Your task to perform on an android device: turn on bluetooth scan Image 0: 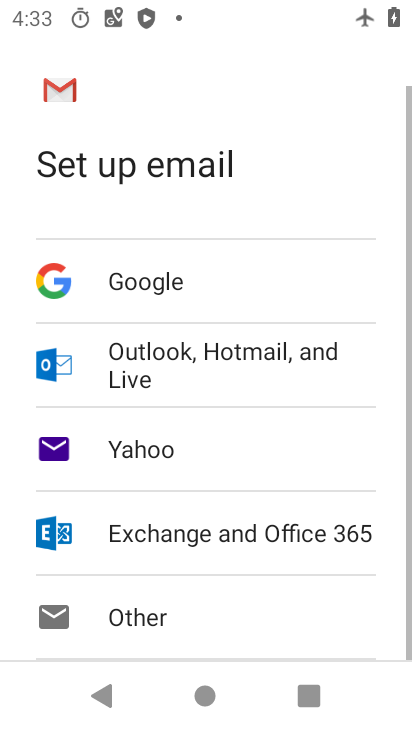
Step 0: press home button
Your task to perform on an android device: turn on bluetooth scan Image 1: 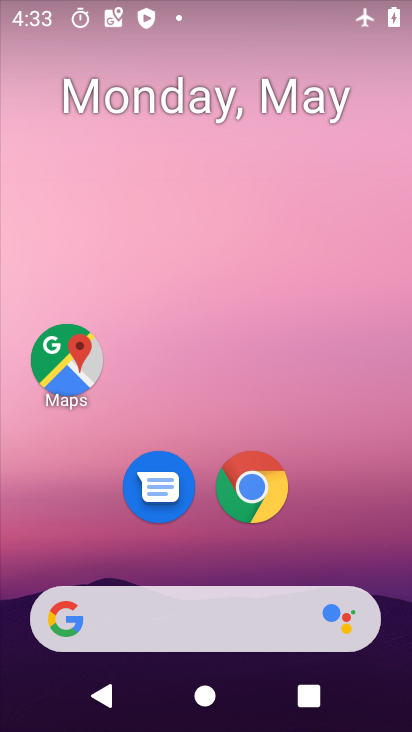
Step 1: drag from (214, 541) to (217, 269)
Your task to perform on an android device: turn on bluetooth scan Image 2: 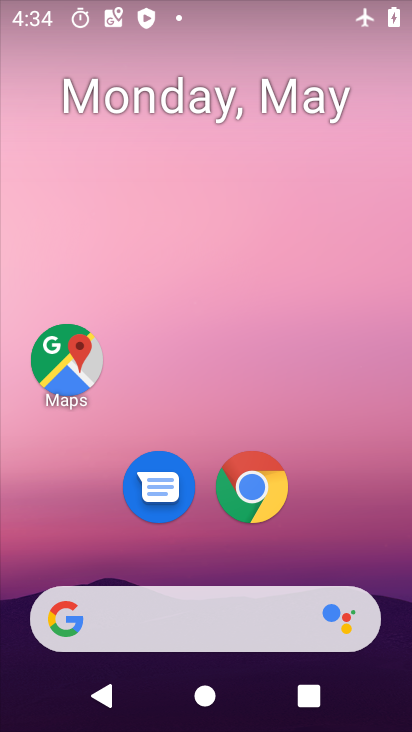
Step 2: drag from (218, 519) to (218, 168)
Your task to perform on an android device: turn on bluetooth scan Image 3: 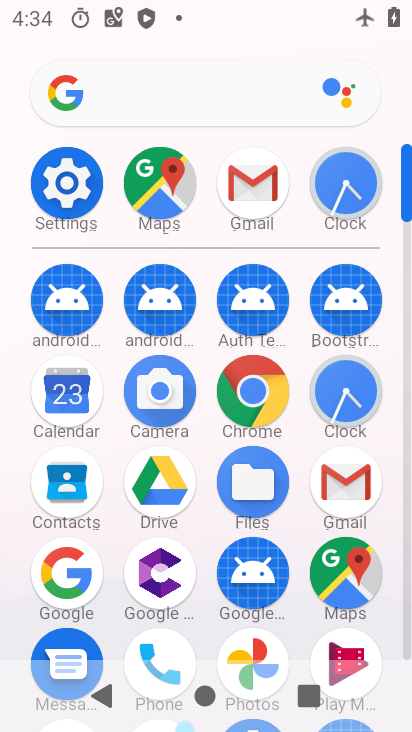
Step 3: click (66, 173)
Your task to perform on an android device: turn on bluetooth scan Image 4: 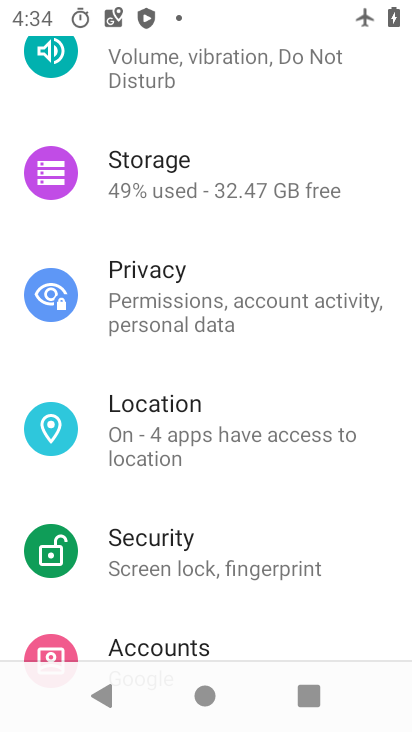
Step 4: click (198, 452)
Your task to perform on an android device: turn on bluetooth scan Image 5: 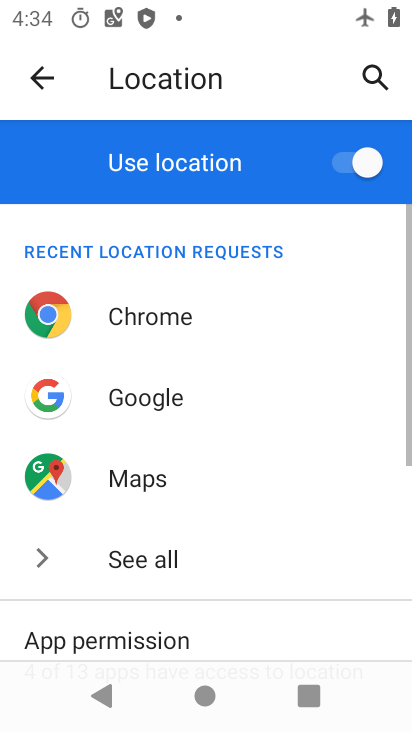
Step 5: drag from (162, 394) to (166, 260)
Your task to perform on an android device: turn on bluetooth scan Image 6: 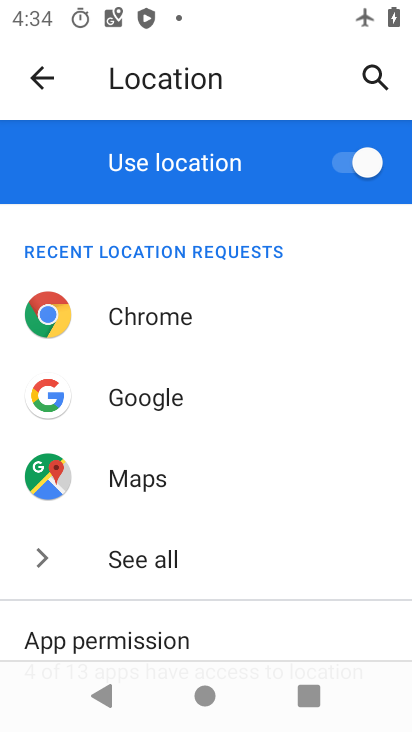
Step 6: drag from (182, 565) to (193, 291)
Your task to perform on an android device: turn on bluetooth scan Image 7: 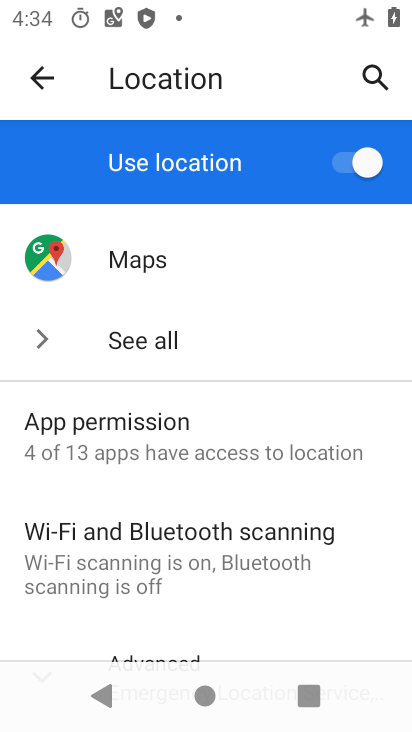
Step 7: drag from (174, 578) to (172, 269)
Your task to perform on an android device: turn on bluetooth scan Image 8: 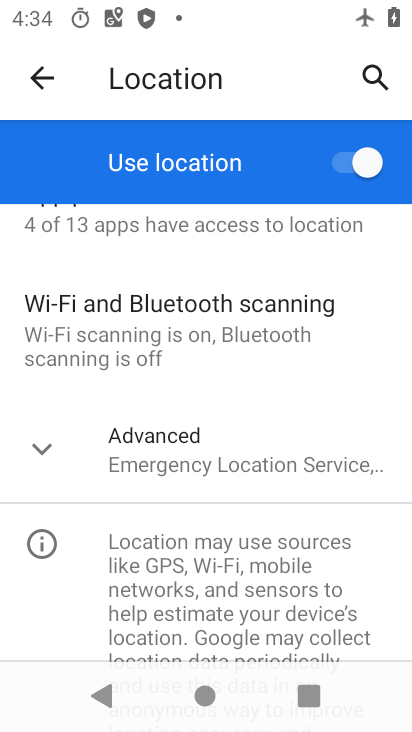
Step 8: click (151, 447)
Your task to perform on an android device: turn on bluetooth scan Image 9: 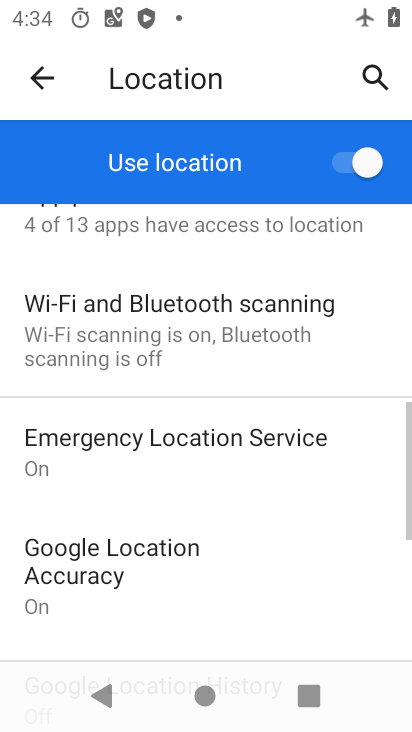
Step 9: click (175, 342)
Your task to perform on an android device: turn on bluetooth scan Image 10: 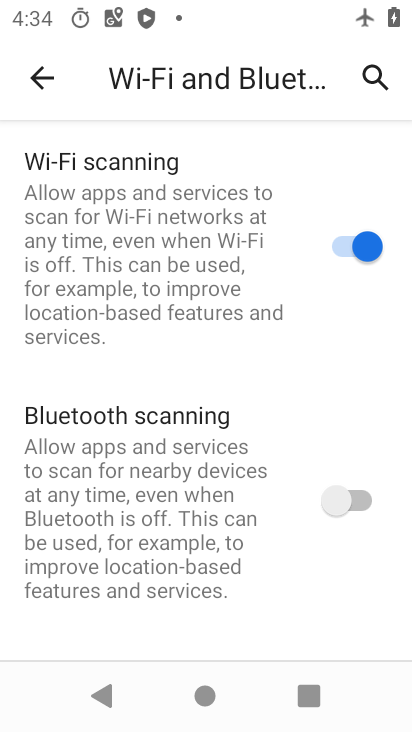
Step 10: click (360, 504)
Your task to perform on an android device: turn on bluetooth scan Image 11: 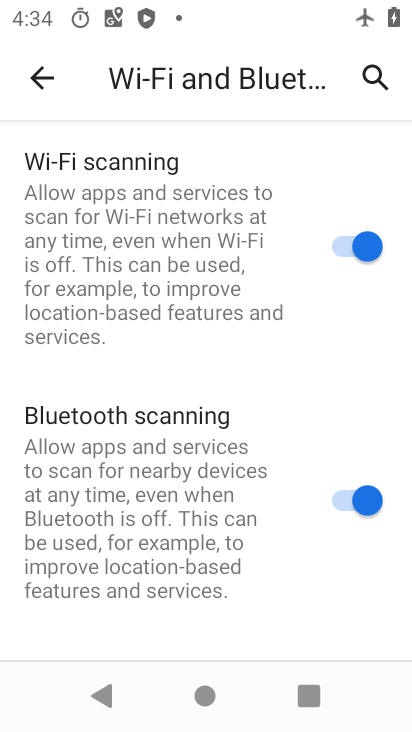
Step 11: task complete